Your task to perform on an android device: visit the assistant section in the google photos Image 0: 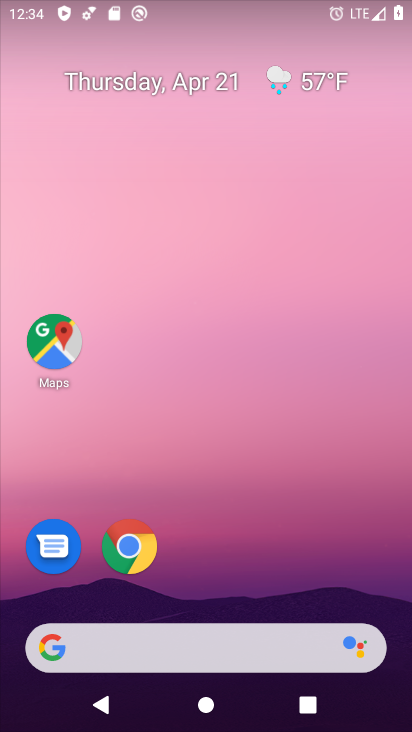
Step 0: drag from (276, 581) to (208, 39)
Your task to perform on an android device: visit the assistant section in the google photos Image 1: 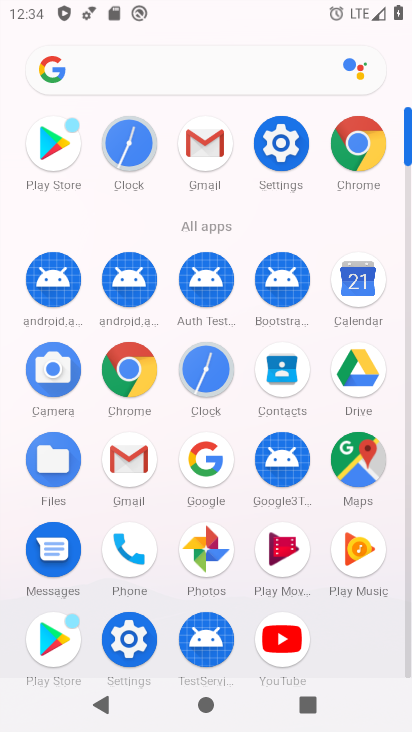
Step 1: click (190, 556)
Your task to perform on an android device: visit the assistant section in the google photos Image 2: 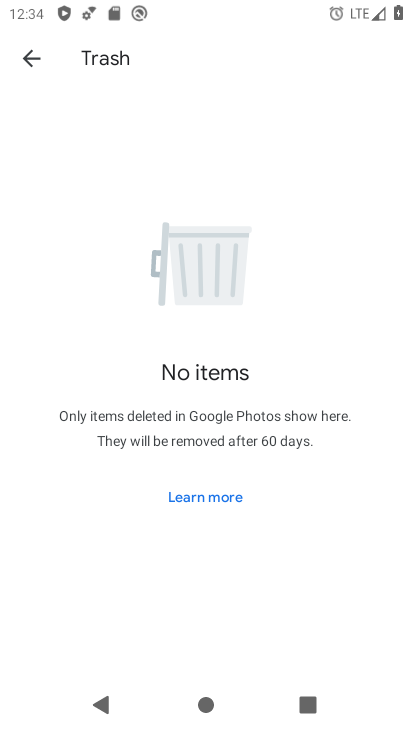
Step 2: click (37, 61)
Your task to perform on an android device: visit the assistant section in the google photos Image 3: 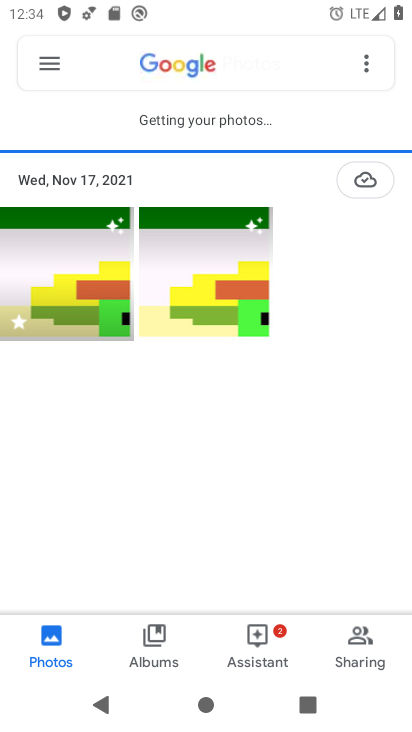
Step 3: click (260, 638)
Your task to perform on an android device: visit the assistant section in the google photos Image 4: 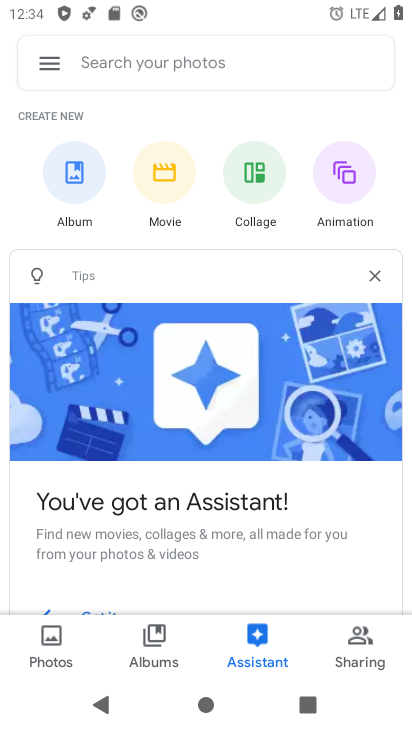
Step 4: task complete